Your task to perform on an android device: Go to Yahoo.com Image 0: 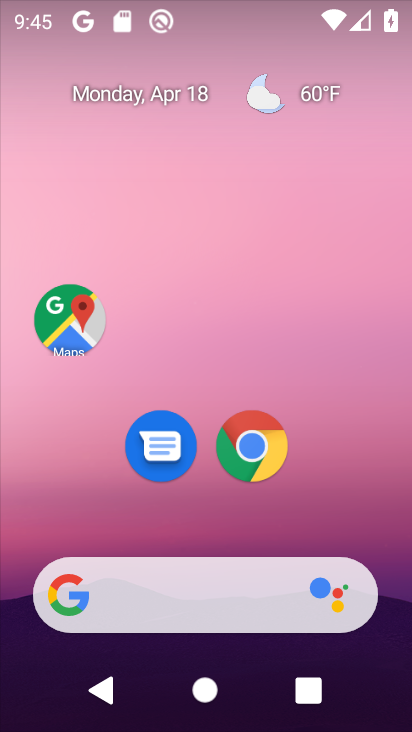
Step 0: drag from (383, 513) to (355, 111)
Your task to perform on an android device: Go to Yahoo.com Image 1: 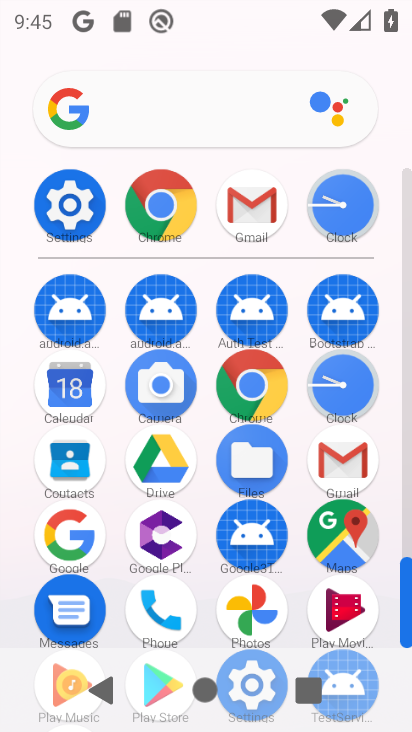
Step 1: click (255, 399)
Your task to perform on an android device: Go to Yahoo.com Image 2: 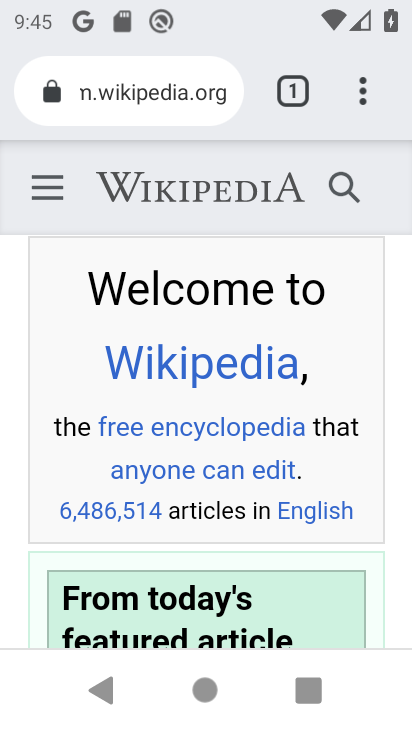
Step 2: press back button
Your task to perform on an android device: Go to Yahoo.com Image 3: 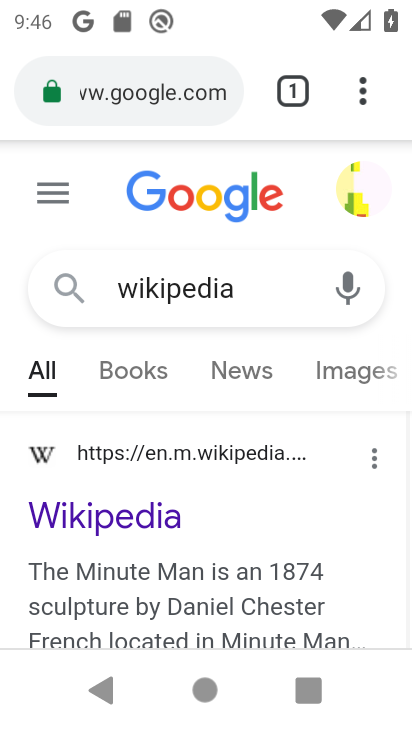
Step 3: press back button
Your task to perform on an android device: Go to Yahoo.com Image 4: 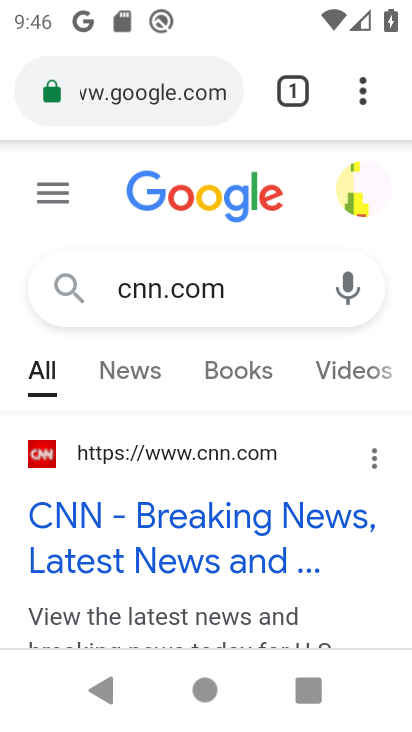
Step 4: press back button
Your task to perform on an android device: Go to Yahoo.com Image 5: 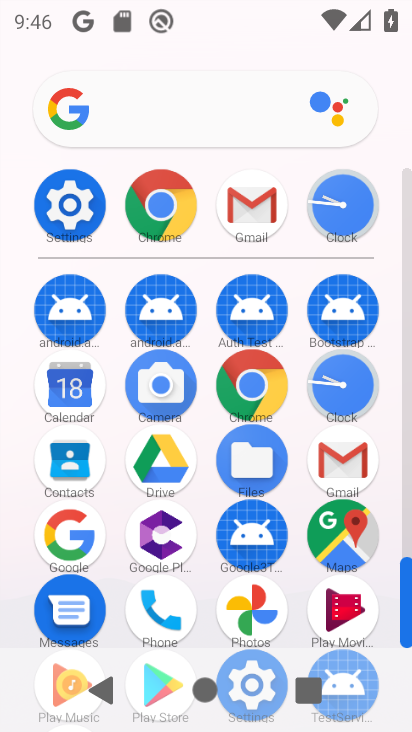
Step 5: click (250, 384)
Your task to perform on an android device: Go to Yahoo.com Image 6: 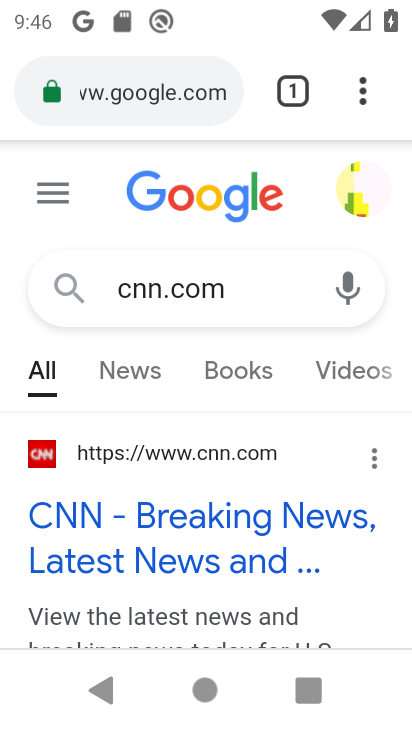
Step 6: click (266, 293)
Your task to perform on an android device: Go to Yahoo.com Image 7: 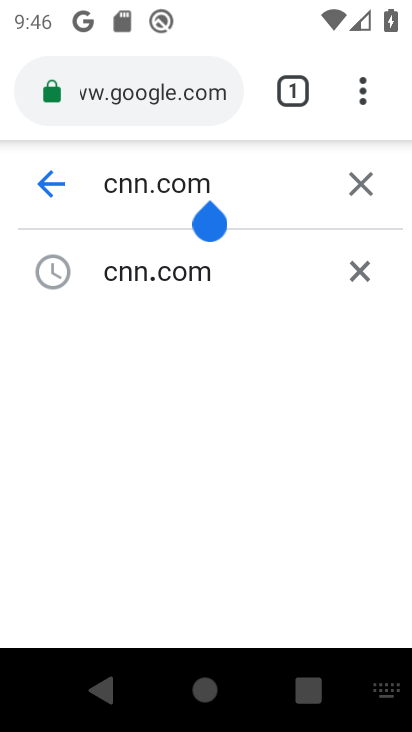
Step 7: click (355, 194)
Your task to perform on an android device: Go to Yahoo.com Image 8: 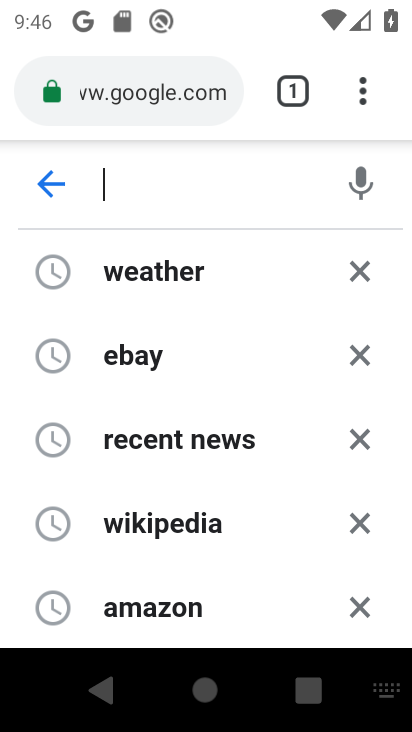
Step 8: type "yahoo.com"
Your task to perform on an android device: Go to Yahoo.com Image 9: 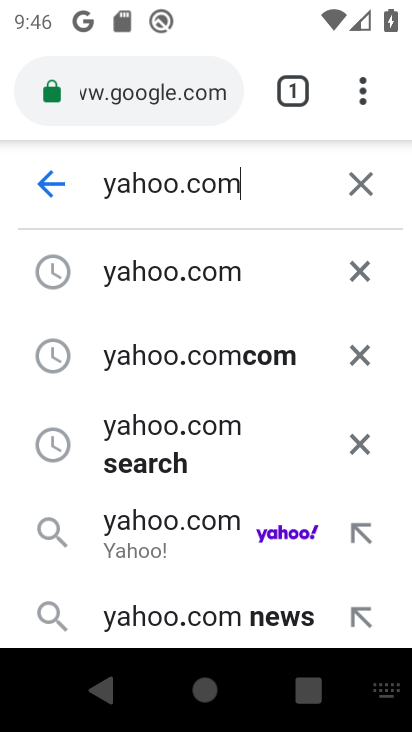
Step 9: click (166, 275)
Your task to perform on an android device: Go to Yahoo.com Image 10: 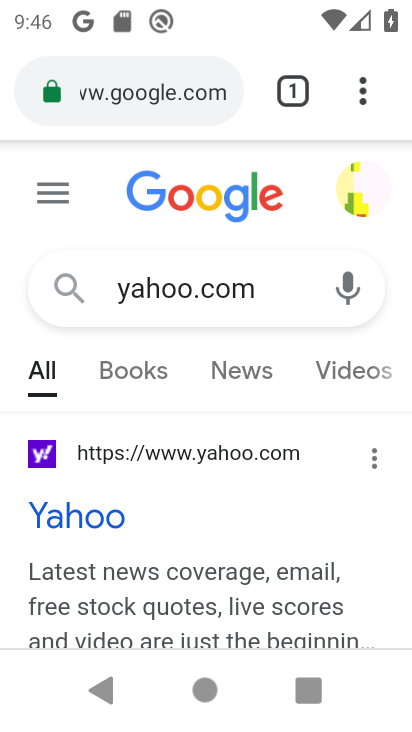
Step 10: click (107, 520)
Your task to perform on an android device: Go to Yahoo.com Image 11: 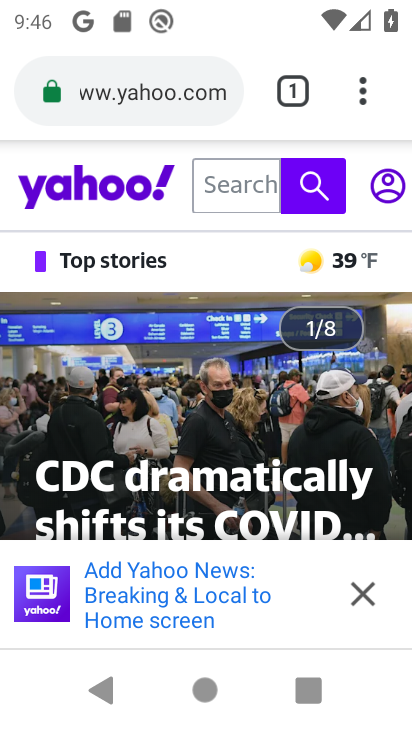
Step 11: task complete